Your task to perform on an android device: turn on showing notifications on the lock screen Image 0: 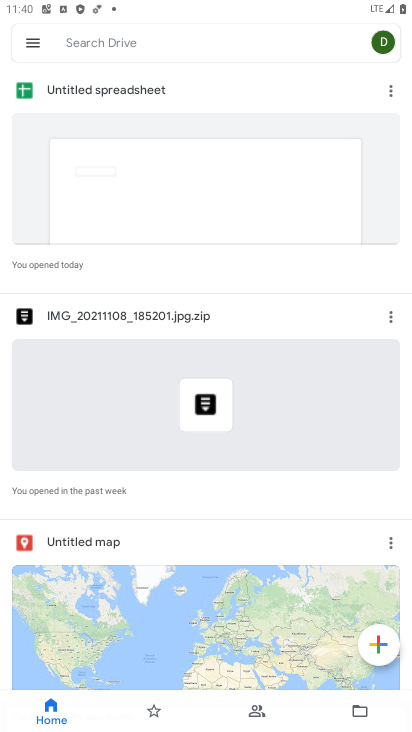
Step 0: press home button
Your task to perform on an android device: turn on showing notifications on the lock screen Image 1: 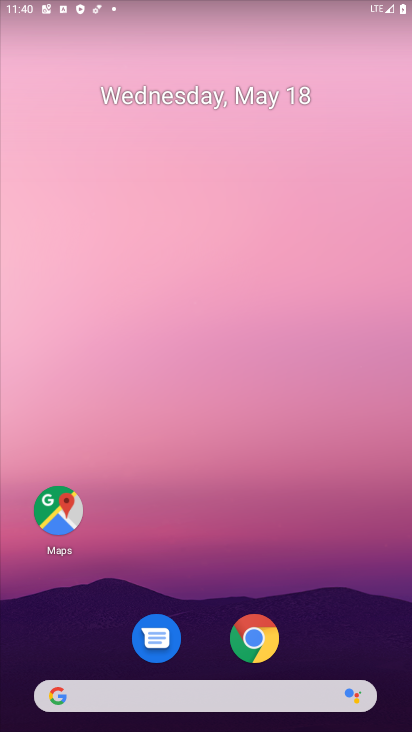
Step 1: drag from (344, 640) to (304, 64)
Your task to perform on an android device: turn on showing notifications on the lock screen Image 2: 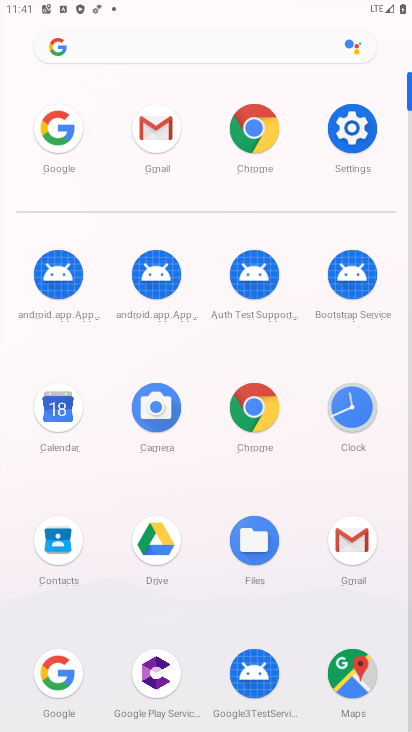
Step 2: click (336, 130)
Your task to perform on an android device: turn on showing notifications on the lock screen Image 3: 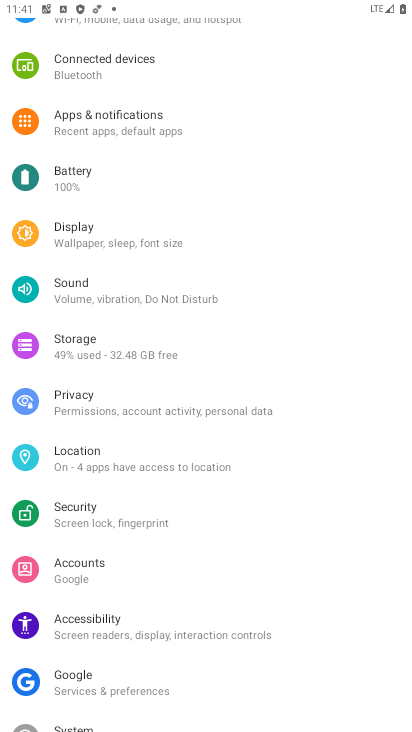
Step 3: click (153, 136)
Your task to perform on an android device: turn on showing notifications on the lock screen Image 4: 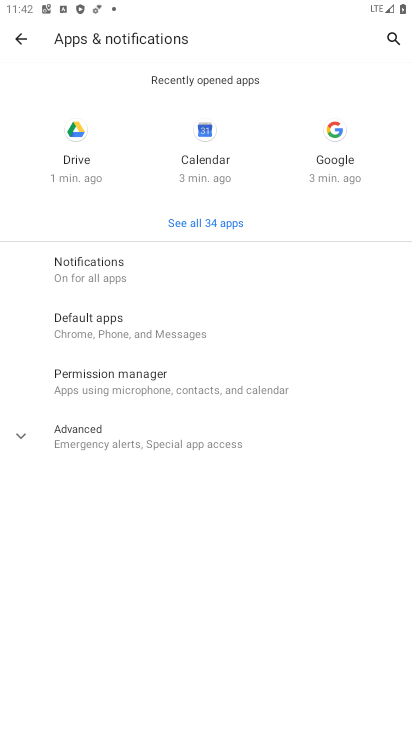
Step 4: click (150, 268)
Your task to perform on an android device: turn on showing notifications on the lock screen Image 5: 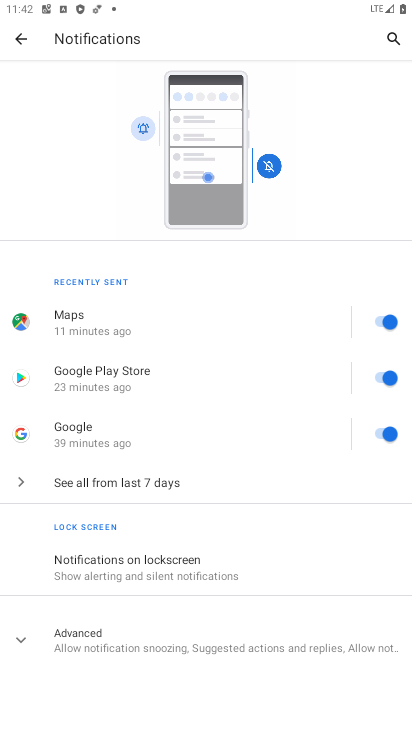
Step 5: click (235, 574)
Your task to perform on an android device: turn on showing notifications on the lock screen Image 6: 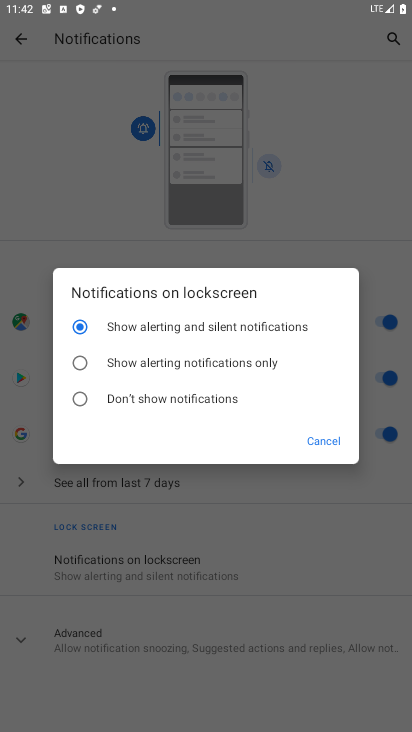
Step 6: task complete